Your task to perform on an android device: Go to accessibility settings Image 0: 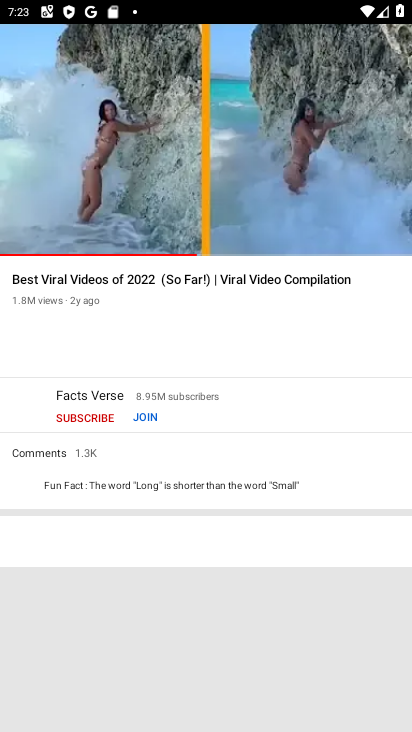
Step 0: drag from (281, 600) to (261, 104)
Your task to perform on an android device: Go to accessibility settings Image 1: 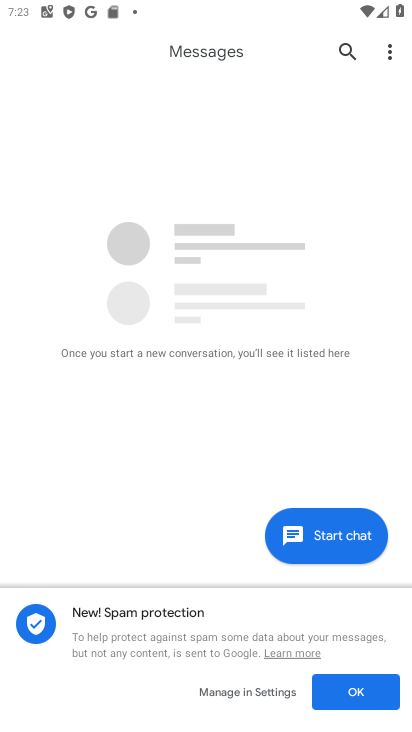
Step 1: press home button
Your task to perform on an android device: Go to accessibility settings Image 2: 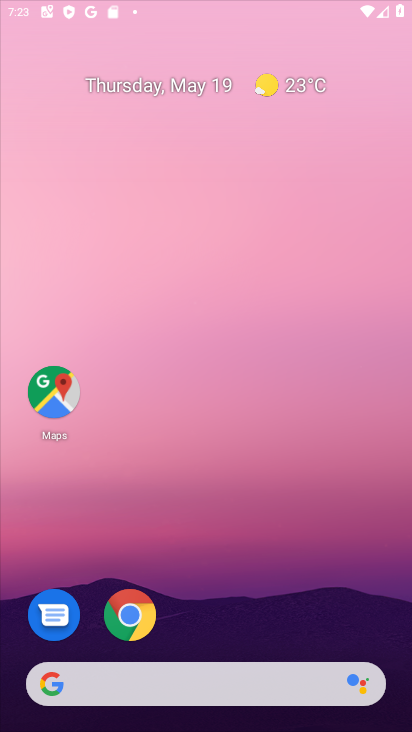
Step 2: drag from (345, 656) to (310, 48)
Your task to perform on an android device: Go to accessibility settings Image 3: 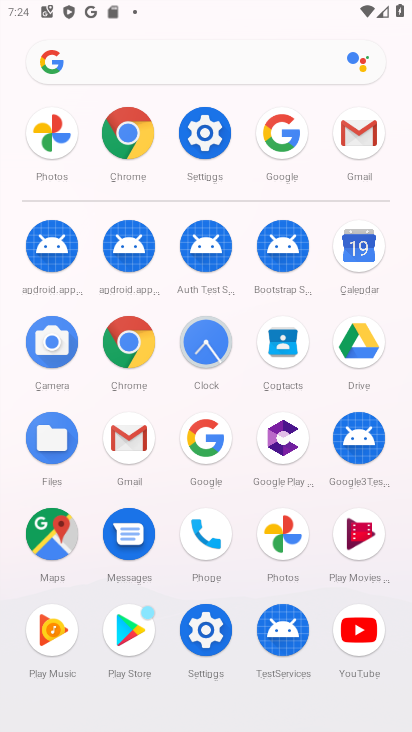
Step 3: click (197, 618)
Your task to perform on an android device: Go to accessibility settings Image 4: 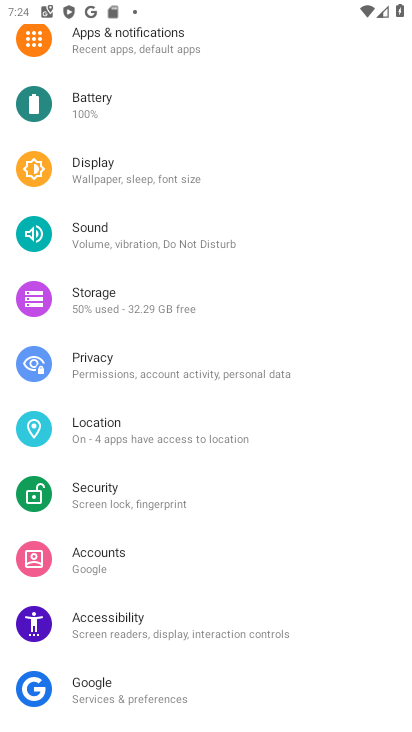
Step 4: click (128, 633)
Your task to perform on an android device: Go to accessibility settings Image 5: 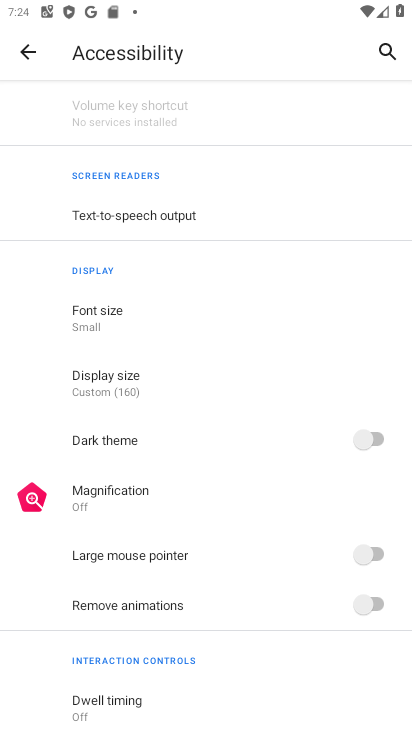
Step 5: task complete